Your task to perform on an android device: Go to Android settings Image 0: 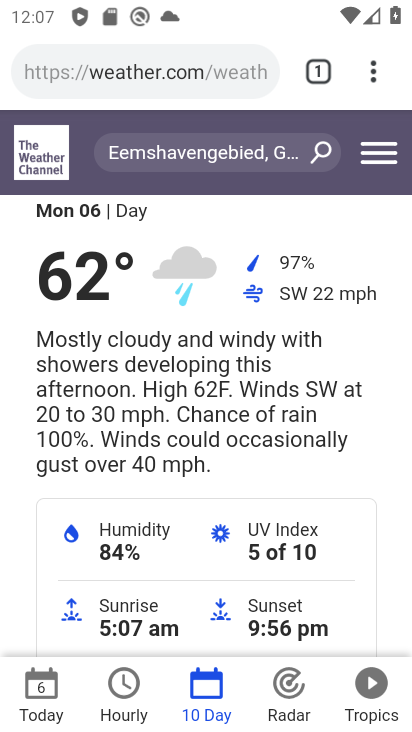
Step 0: press home button
Your task to perform on an android device: Go to Android settings Image 1: 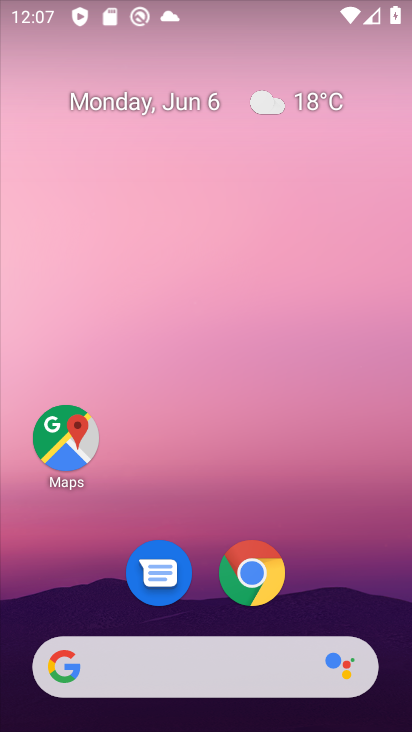
Step 1: drag from (137, 655) to (305, 133)
Your task to perform on an android device: Go to Android settings Image 2: 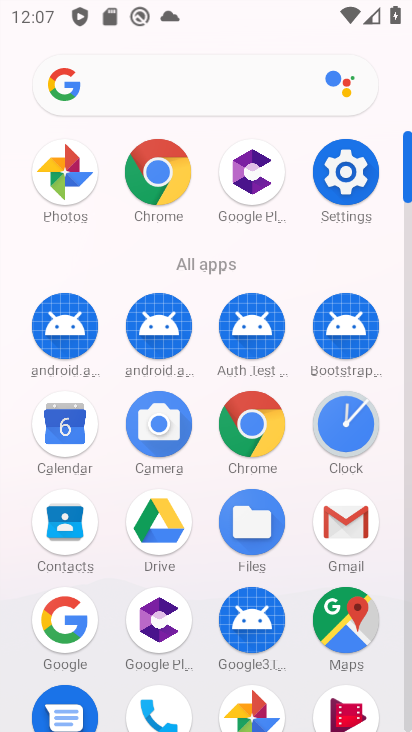
Step 2: drag from (168, 608) to (210, 310)
Your task to perform on an android device: Go to Android settings Image 3: 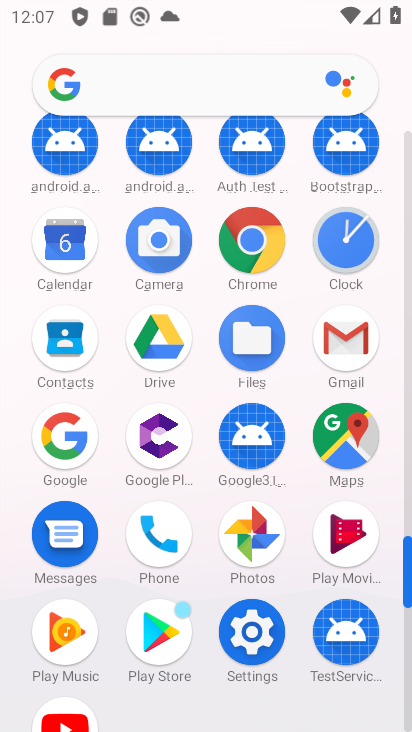
Step 3: click (252, 653)
Your task to perform on an android device: Go to Android settings Image 4: 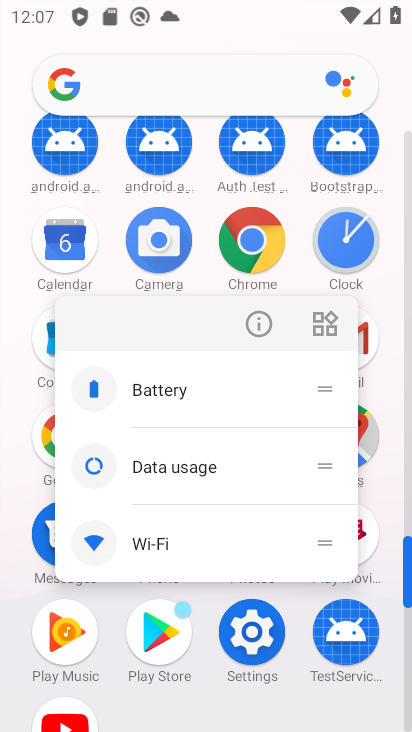
Step 4: click (249, 641)
Your task to perform on an android device: Go to Android settings Image 5: 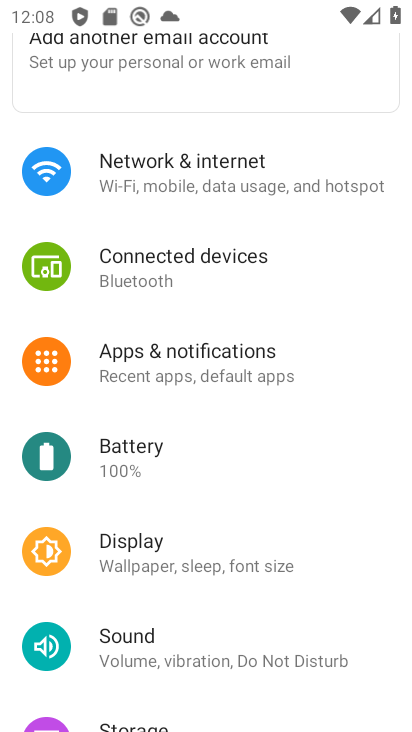
Step 5: task complete